Your task to perform on an android device: Open network settings Image 0: 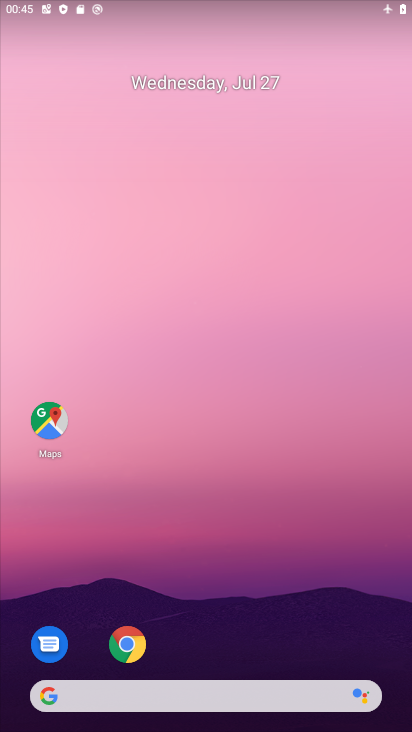
Step 0: drag from (166, 375) to (145, 180)
Your task to perform on an android device: Open network settings Image 1: 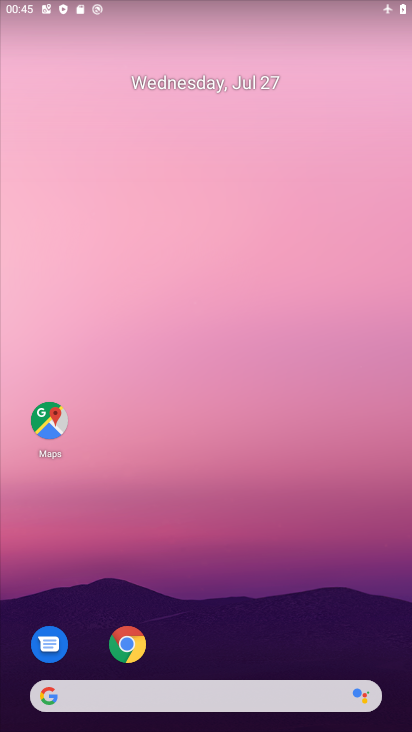
Step 1: drag from (212, 485) to (145, 70)
Your task to perform on an android device: Open network settings Image 2: 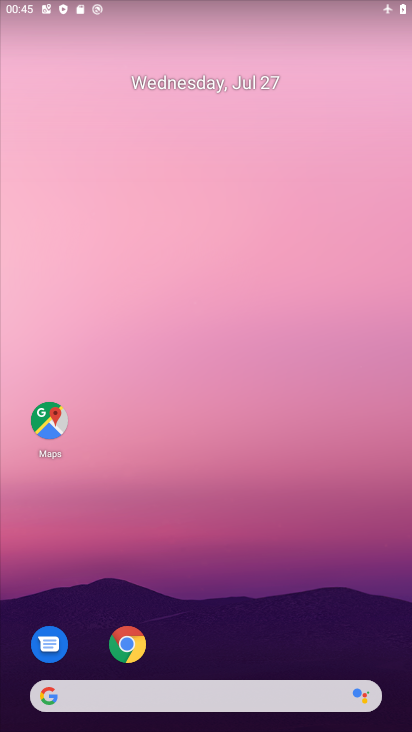
Step 2: drag from (221, 508) to (185, 121)
Your task to perform on an android device: Open network settings Image 3: 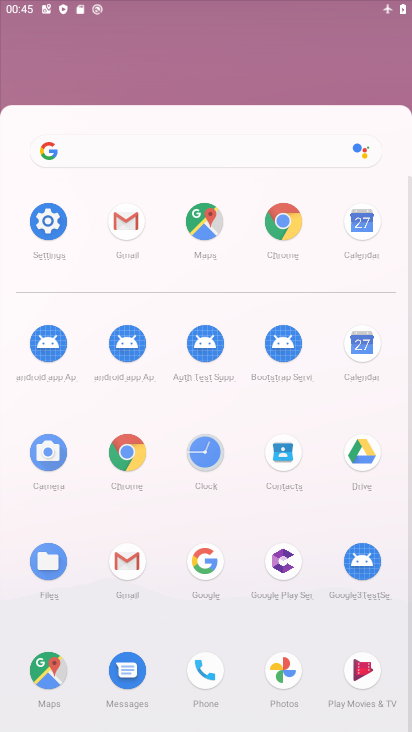
Step 3: drag from (259, 487) to (196, 117)
Your task to perform on an android device: Open network settings Image 4: 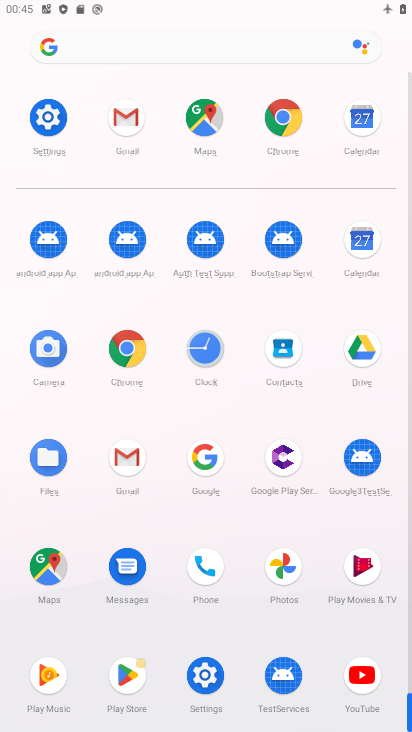
Step 4: drag from (245, 598) to (224, 83)
Your task to perform on an android device: Open network settings Image 5: 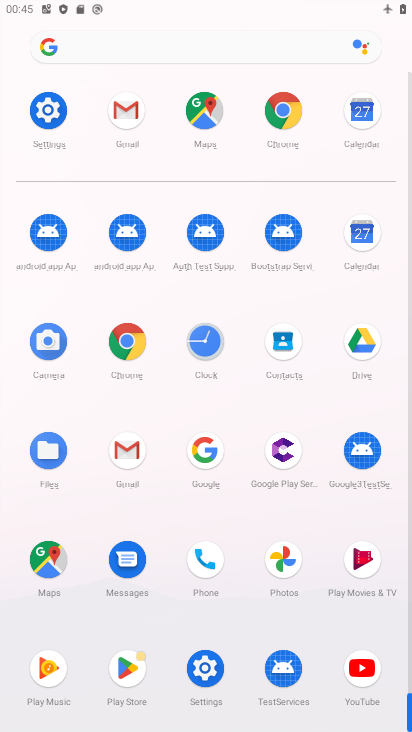
Step 5: click (49, 90)
Your task to perform on an android device: Open network settings Image 6: 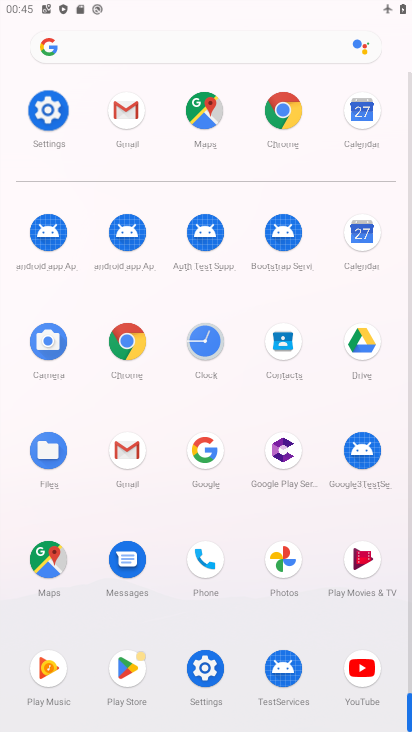
Step 6: click (45, 94)
Your task to perform on an android device: Open network settings Image 7: 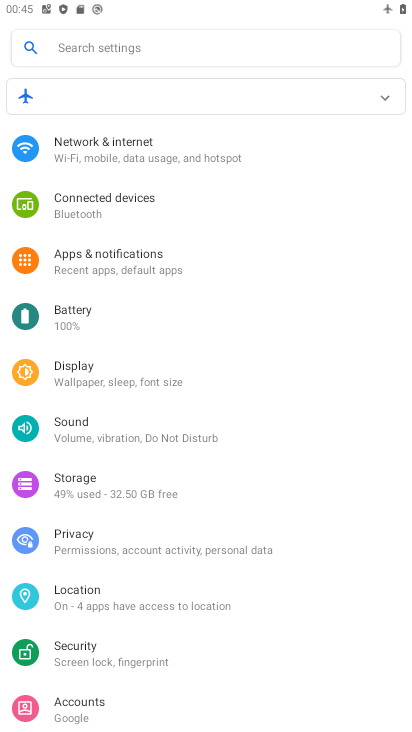
Step 7: click (44, 93)
Your task to perform on an android device: Open network settings Image 8: 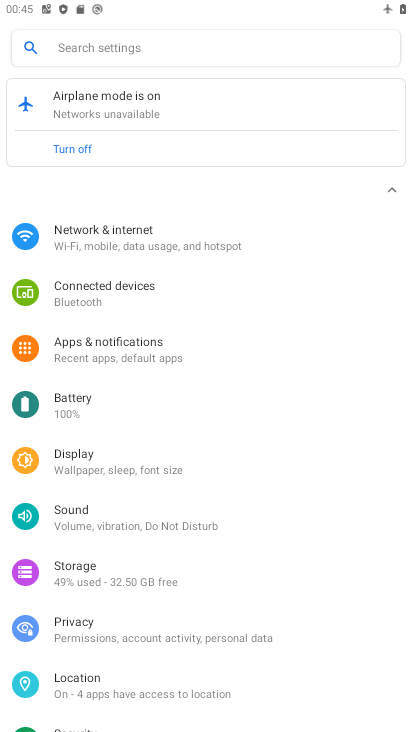
Step 8: click (111, 138)
Your task to perform on an android device: Open network settings Image 9: 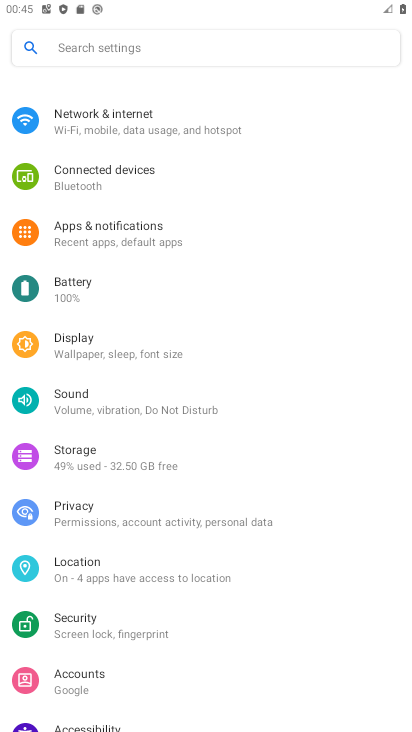
Step 9: click (117, 246)
Your task to perform on an android device: Open network settings Image 10: 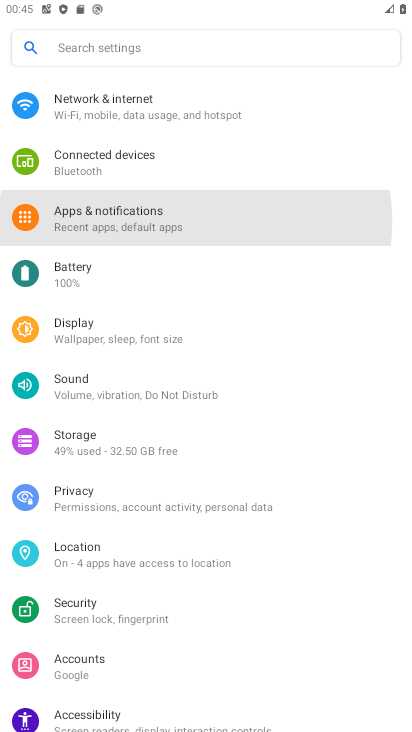
Step 10: click (127, 231)
Your task to perform on an android device: Open network settings Image 11: 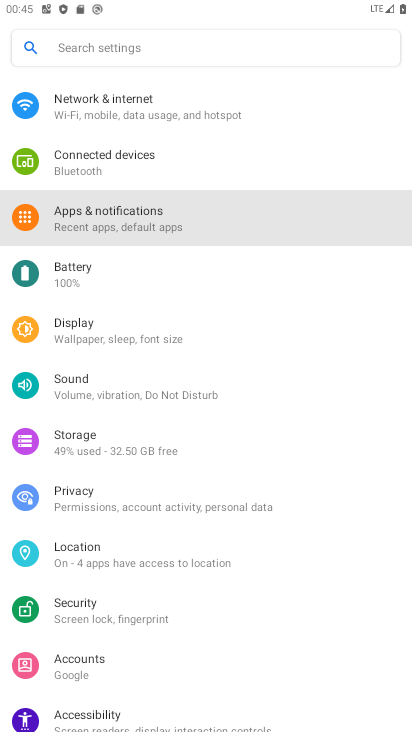
Step 11: task complete